Your task to perform on an android device: delete the emails in spam in the gmail app Image 0: 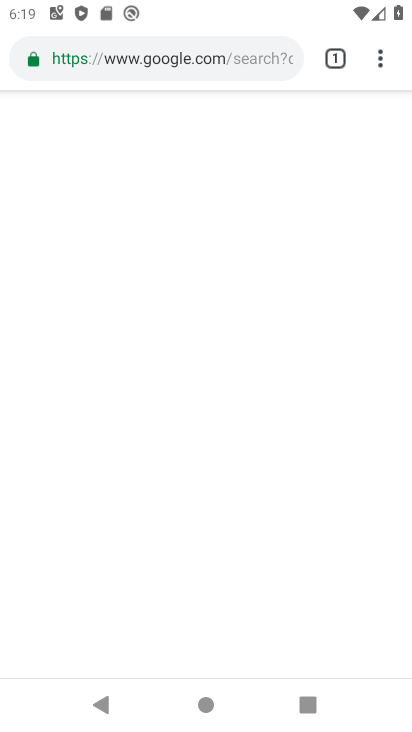
Step 0: press home button
Your task to perform on an android device: delete the emails in spam in the gmail app Image 1: 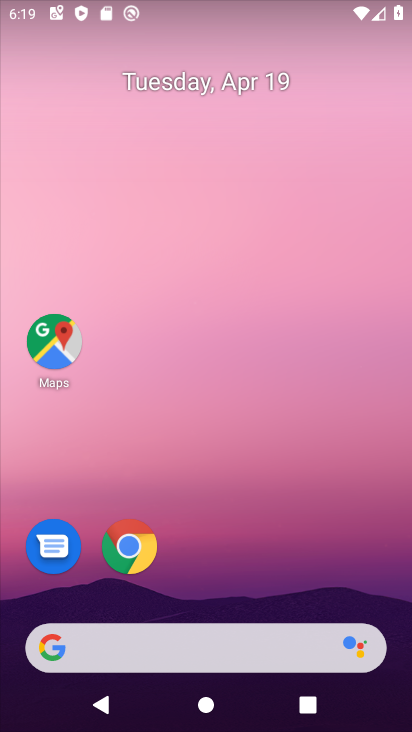
Step 1: drag from (253, 524) to (237, 82)
Your task to perform on an android device: delete the emails in spam in the gmail app Image 2: 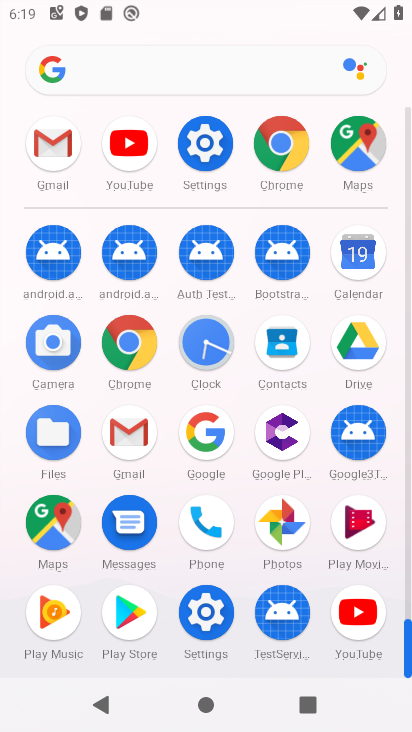
Step 2: click (51, 144)
Your task to perform on an android device: delete the emails in spam in the gmail app Image 3: 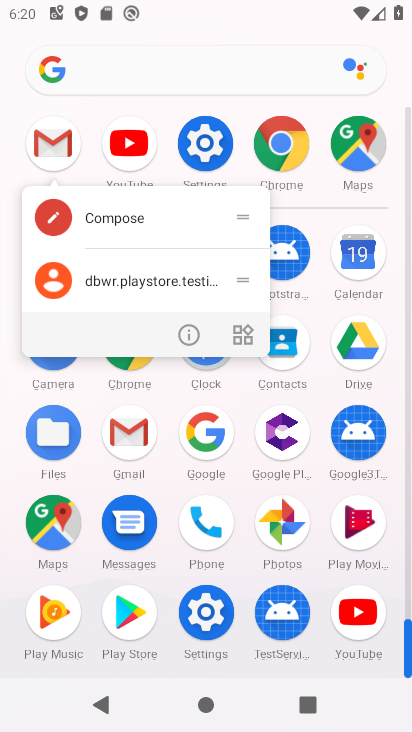
Step 3: click (146, 438)
Your task to perform on an android device: delete the emails in spam in the gmail app Image 4: 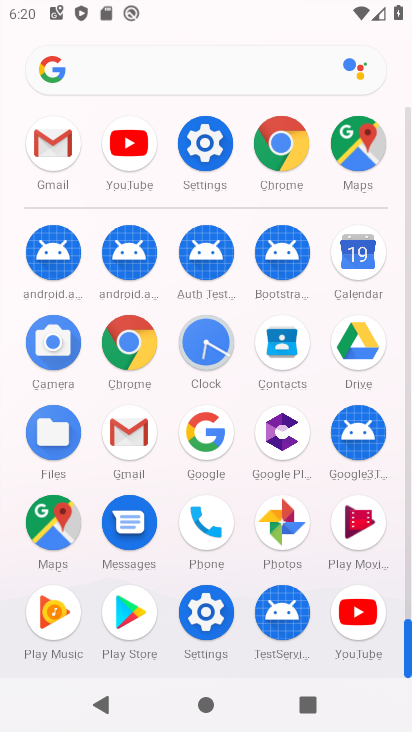
Step 4: click (132, 428)
Your task to perform on an android device: delete the emails in spam in the gmail app Image 5: 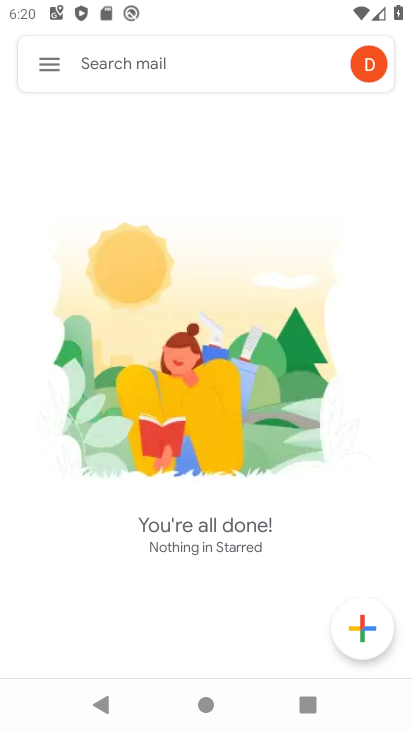
Step 5: click (54, 59)
Your task to perform on an android device: delete the emails in spam in the gmail app Image 6: 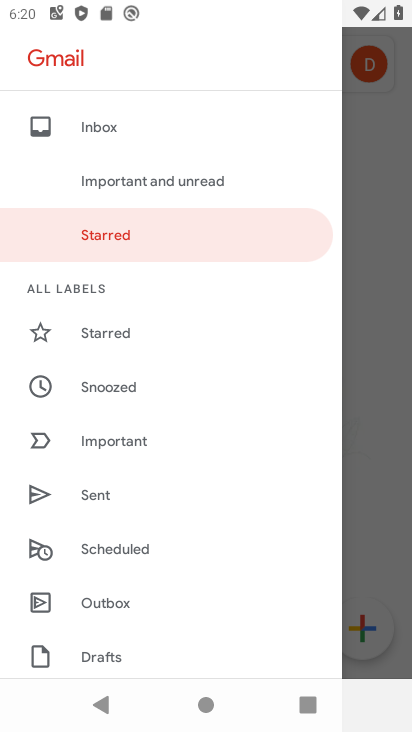
Step 6: drag from (199, 560) to (255, 128)
Your task to perform on an android device: delete the emails in spam in the gmail app Image 7: 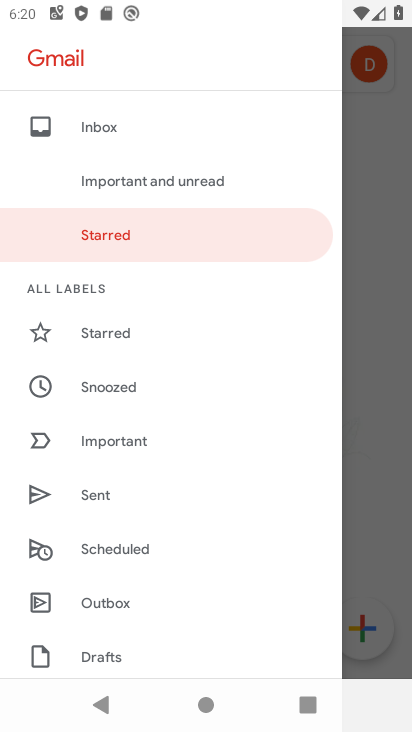
Step 7: drag from (119, 505) to (167, 152)
Your task to perform on an android device: delete the emails in spam in the gmail app Image 8: 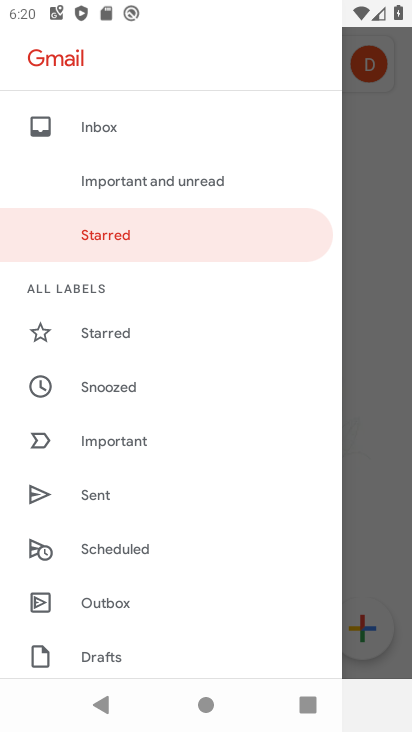
Step 8: drag from (147, 560) to (153, 229)
Your task to perform on an android device: delete the emails in spam in the gmail app Image 9: 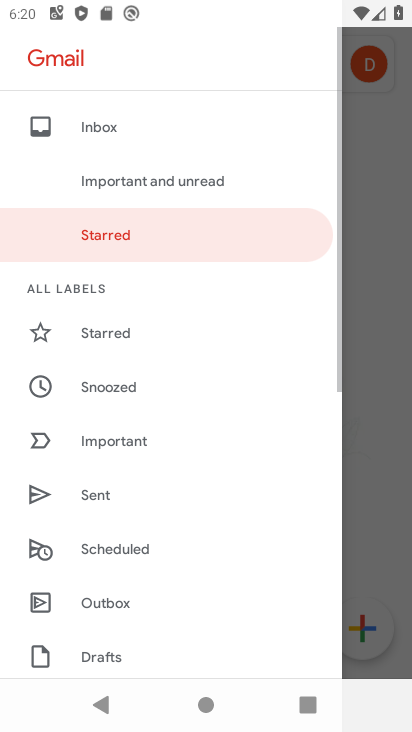
Step 9: drag from (143, 396) to (190, 193)
Your task to perform on an android device: delete the emails in spam in the gmail app Image 10: 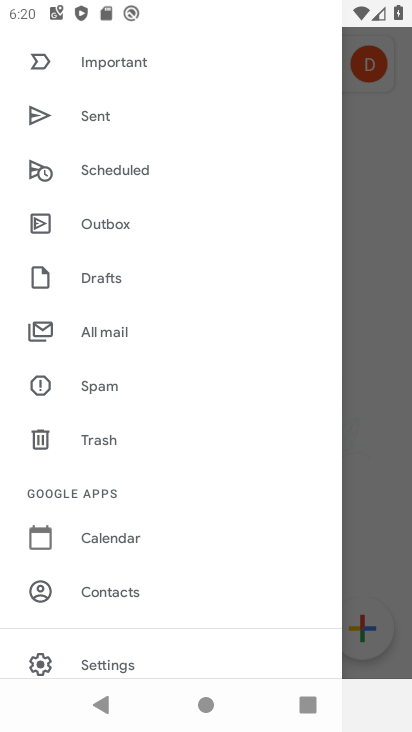
Step 10: click (103, 386)
Your task to perform on an android device: delete the emails in spam in the gmail app Image 11: 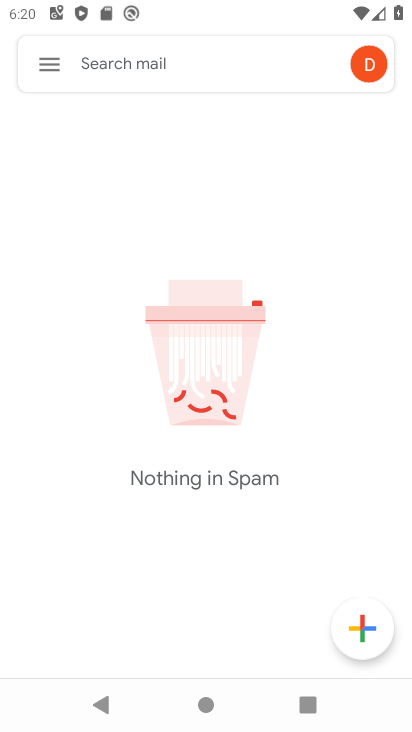
Step 11: task complete